Your task to perform on an android device: Go to Google Image 0: 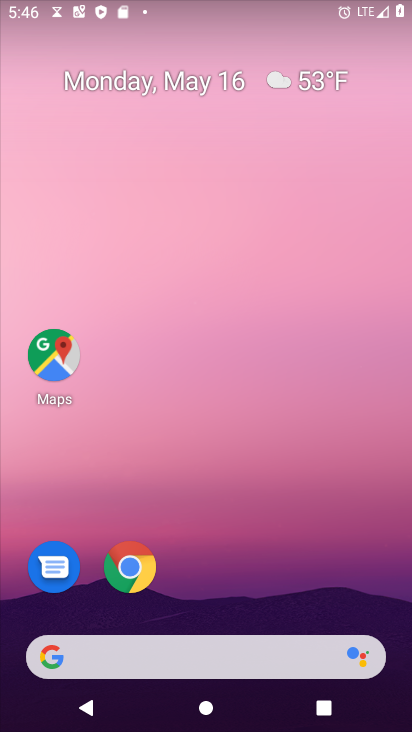
Step 0: drag from (251, 600) to (272, 8)
Your task to perform on an android device: Go to Google Image 1: 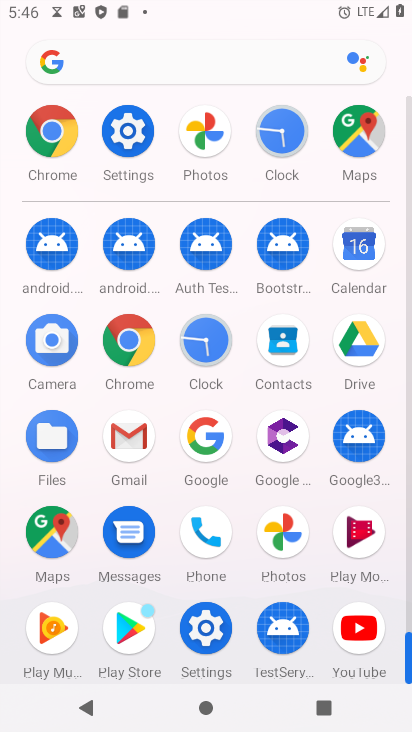
Step 1: click (124, 341)
Your task to perform on an android device: Go to Google Image 2: 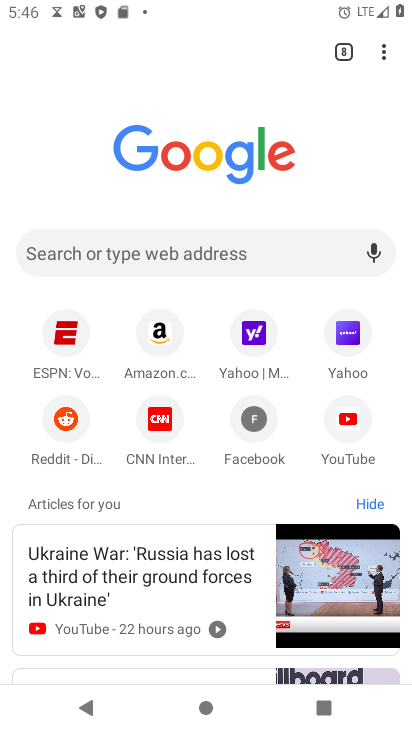
Step 2: task complete